Your task to perform on an android device: Open the calendar app, open the side menu, and click the "Day" option Image 0: 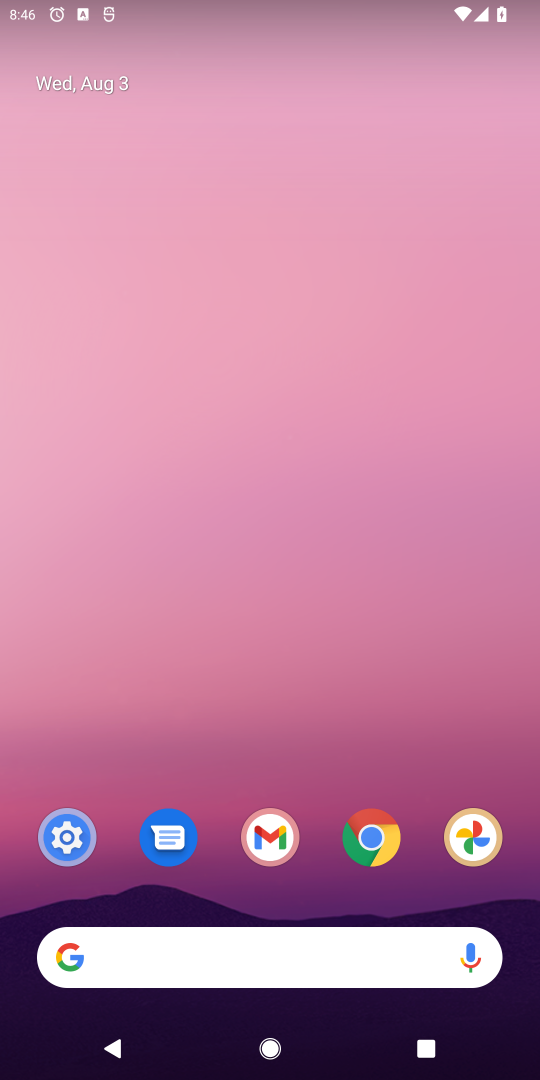
Step 0: press home button
Your task to perform on an android device: Open the calendar app, open the side menu, and click the "Day" option Image 1: 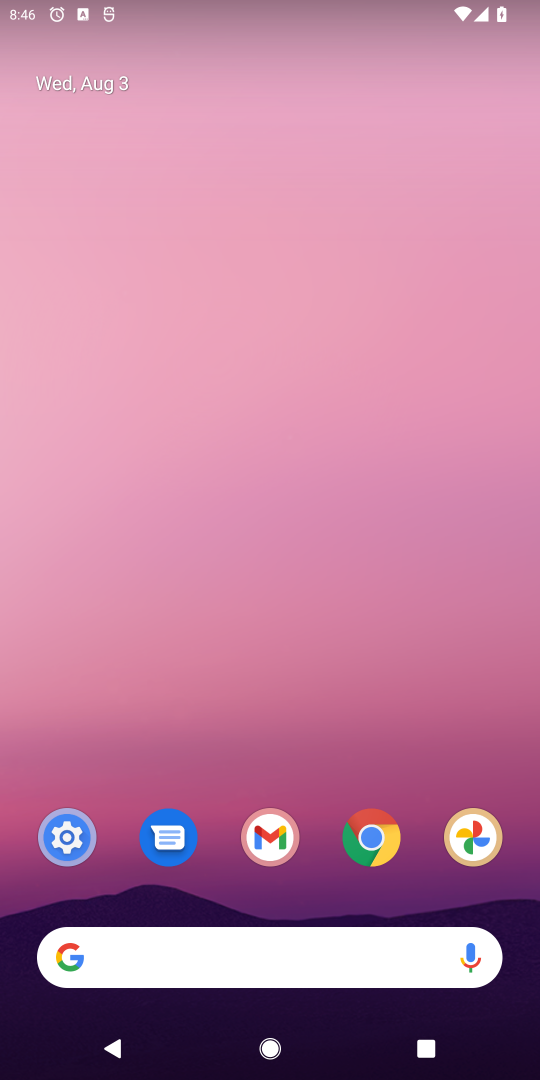
Step 1: drag from (340, 892) to (375, 433)
Your task to perform on an android device: Open the calendar app, open the side menu, and click the "Day" option Image 2: 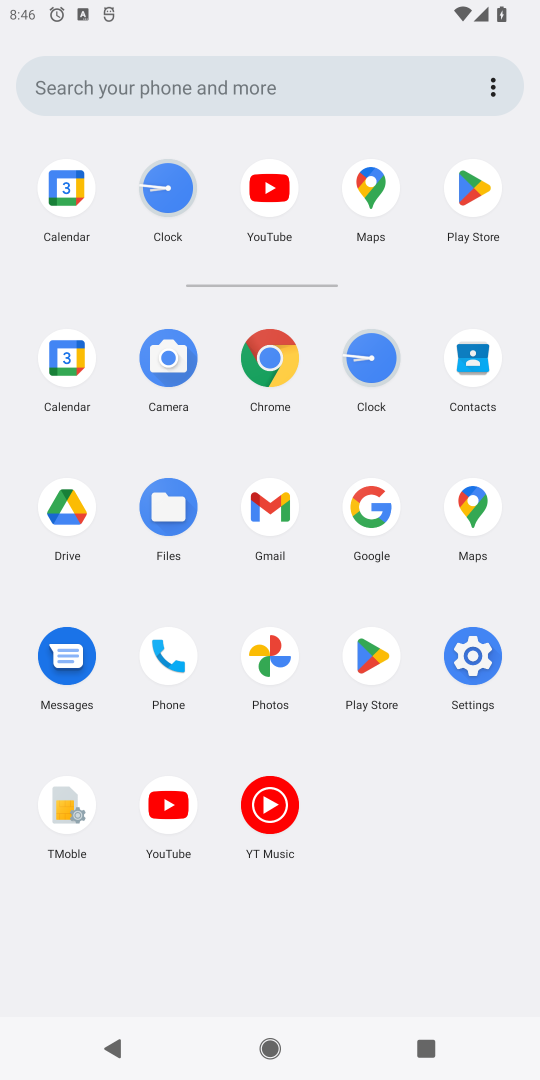
Step 2: click (72, 192)
Your task to perform on an android device: Open the calendar app, open the side menu, and click the "Day" option Image 3: 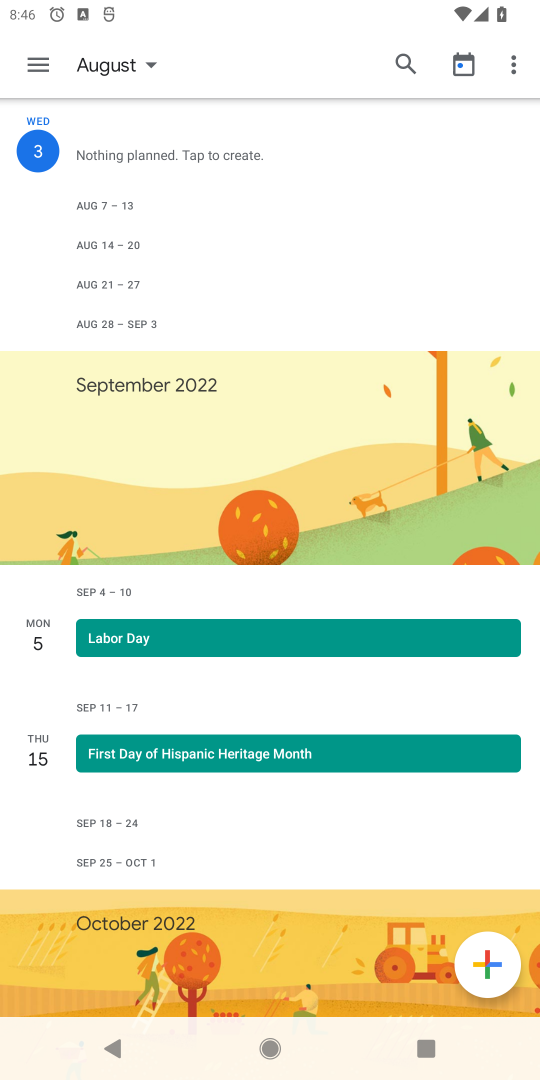
Step 3: click (40, 64)
Your task to perform on an android device: Open the calendar app, open the side menu, and click the "Day" option Image 4: 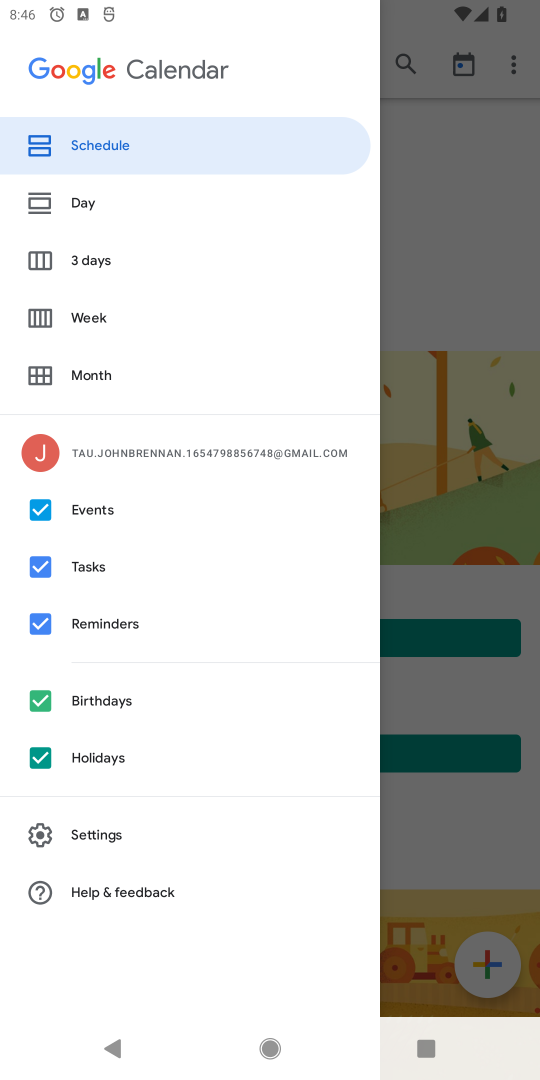
Step 4: click (71, 201)
Your task to perform on an android device: Open the calendar app, open the side menu, and click the "Day" option Image 5: 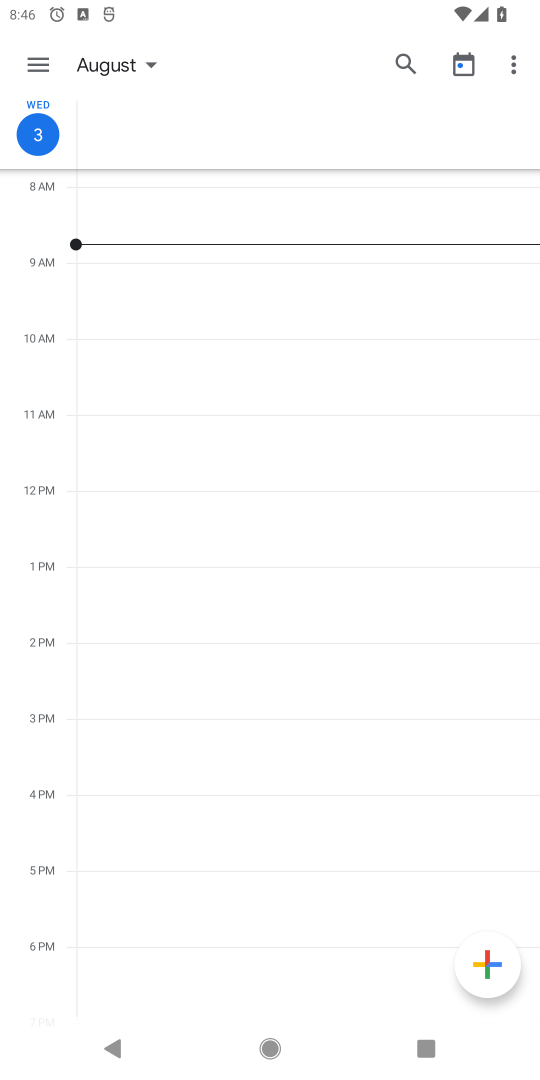
Step 5: task complete